Your task to perform on an android device: Open sound settings Image 0: 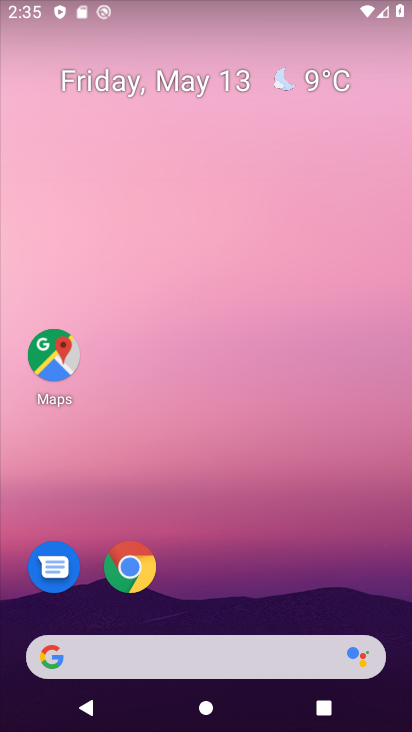
Step 0: drag from (339, 591) to (302, 5)
Your task to perform on an android device: Open sound settings Image 1: 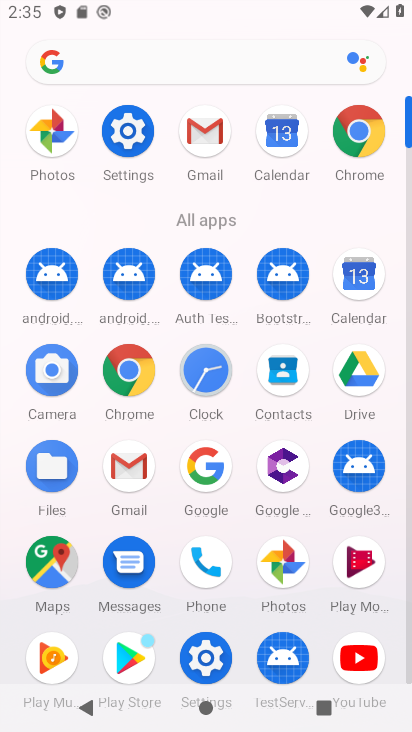
Step 1: click (128, 136)
Your task to perform on an android device: Open sound settings Image 2: 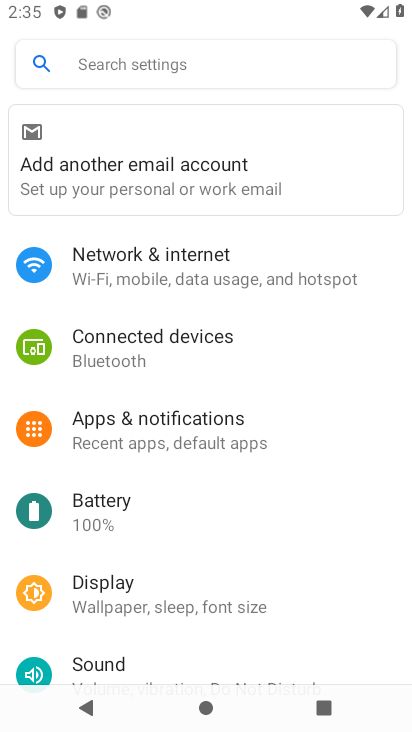
Step 2: drag from (351, 610) to (355, 381)
Your task to perform on an android device: Open sound settings Image 3: 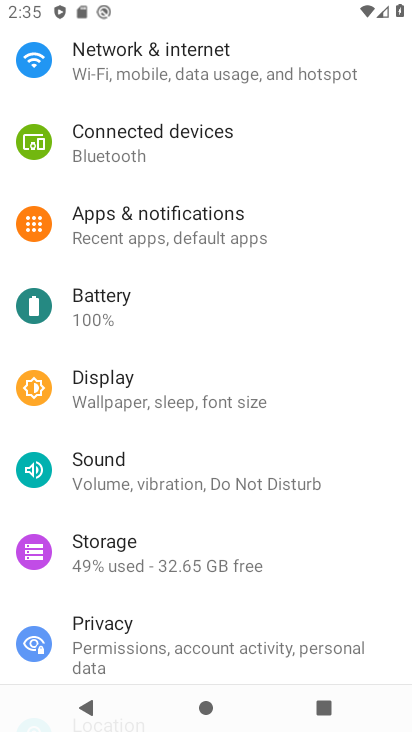
Step 3: click (84, 471)
Your task to perform on an android device: Open sound settings Image 4: 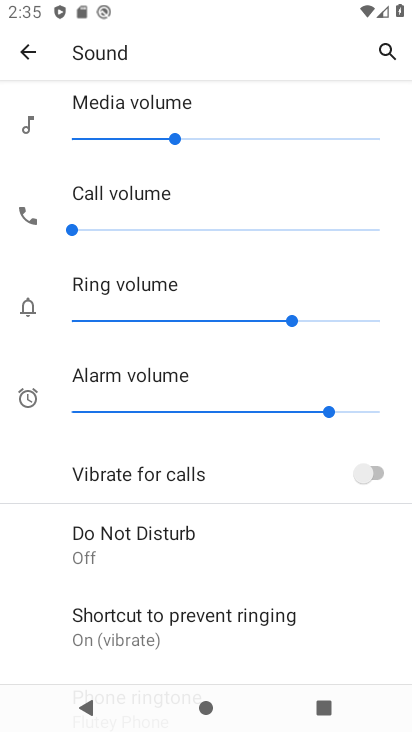
Step 4: task complete